Your task to perform on an android device: turn smart compose on in the gmail app Image 0: 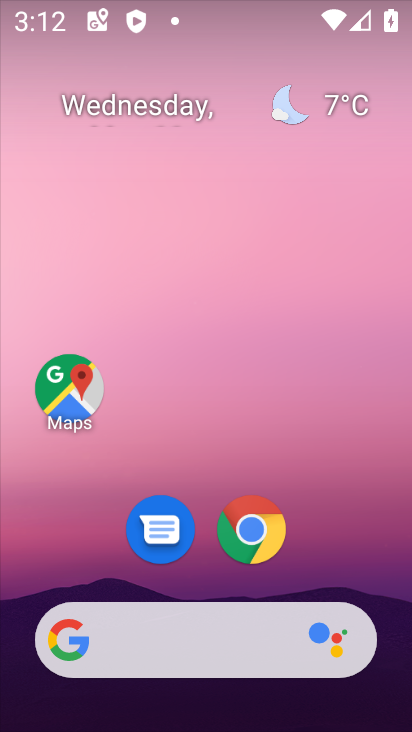
Step 0: drag from (16, 561) to (197, 119)
Your task to perform on an android device: turn smart compose on in the gmail app Image 1: 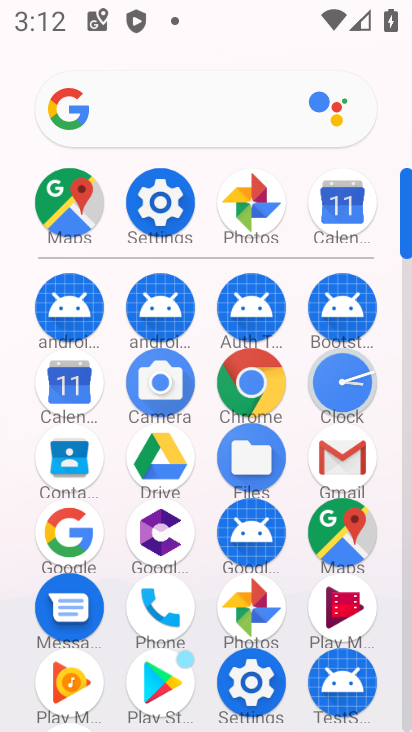
Step 1: click (357, 456)
Your task to perform on an android device: turn smart compose on in the gmail app Image 2: 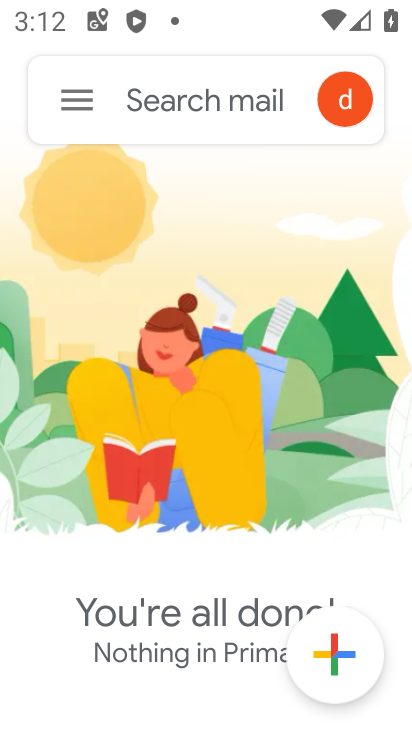
Step 2: click (58, 95)
Your task to perform on an android device: turn smart compose on in the gmail app Image 3: 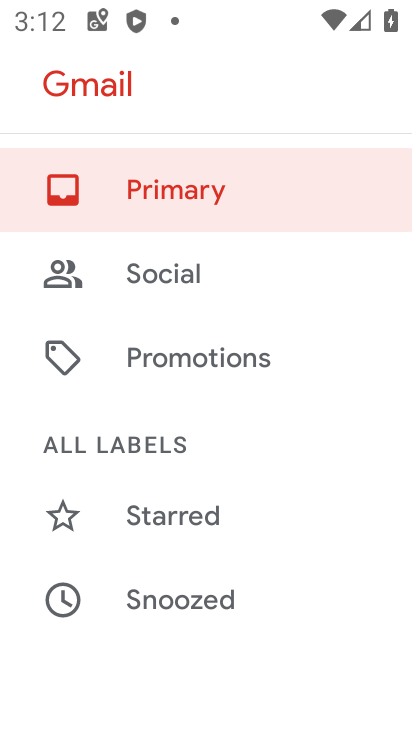
Step 3: drag from (126, 609) to (254, 93)
Your task to perform on an android device: turn smart compose on in the gmail app Image 4: 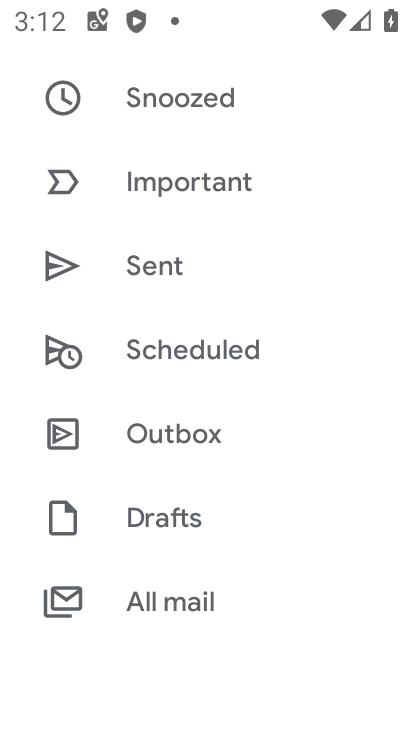
Step 4: drag from (124, 623) to (252, 117)
Your task to perform on an android device: turn smart compose on in the gmail app Image 5: 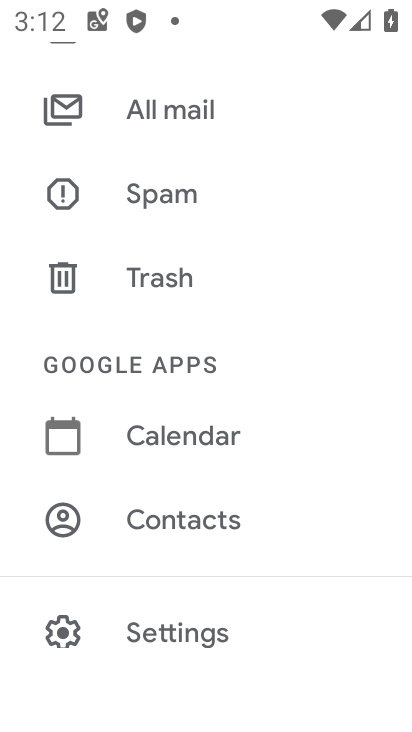
Step 5: click (167, 630)
Your task to perform on an android device: turn smart compose on in the gmail app Image 6: 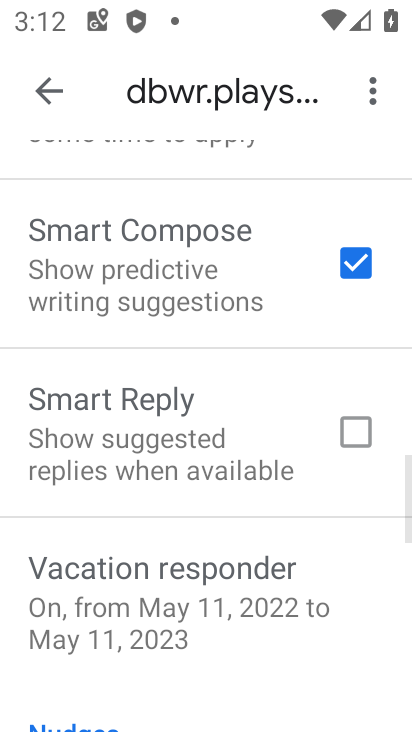
Step 6: task complete